Your task to perform on an android device: Do I have any events tomorrow? Image 0: 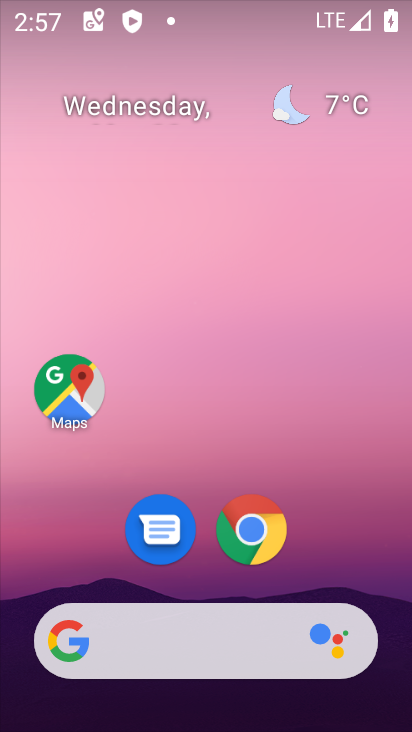
Step 0: drag from (353, 580) to (303, 104)
Your task to perform on an android device: Do I have any events tomorrow? Image 1: 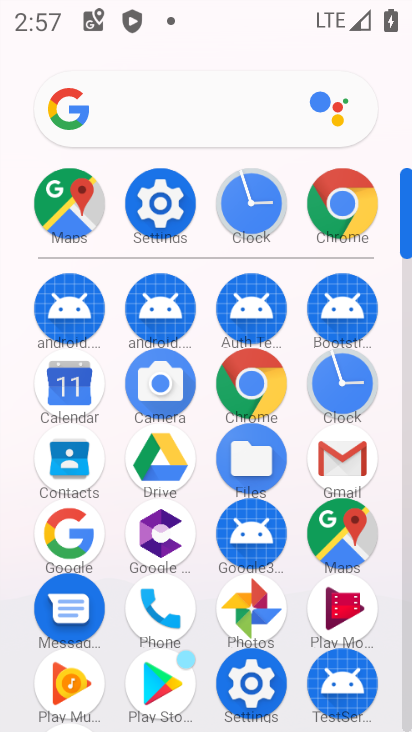
Step 1: click (87, 385)
Your task to perform on an android device: Do I have any events tomorrow? Image 2: 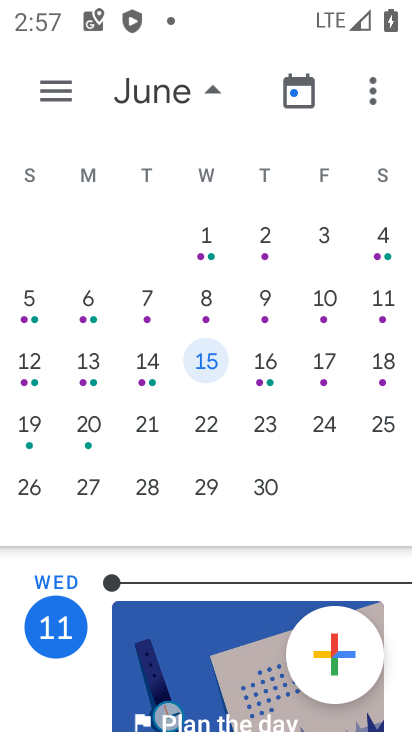
Step 2: click (266, 373)
Your task to perform on an android device: Do I have any events tomorrow? Image 3: 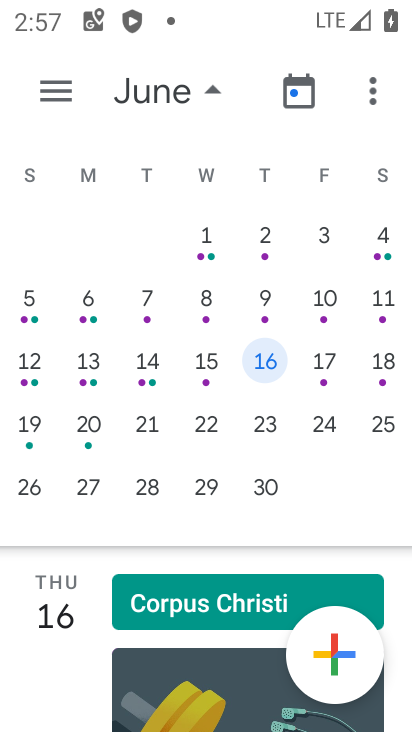
Step 3: task complete